Your task to perform on an android device: Do I have any events tomorrow? Image 0: 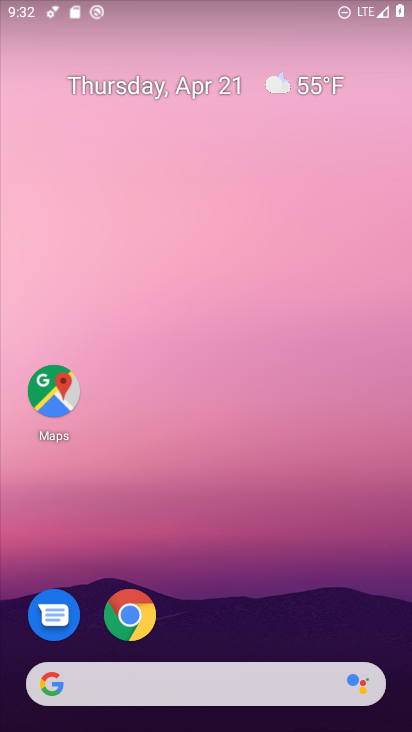
Step 0: drag from (317, 569) to (332, 133)
Your task to perform on an android device: Do I have any events tomorrow? Image 1: 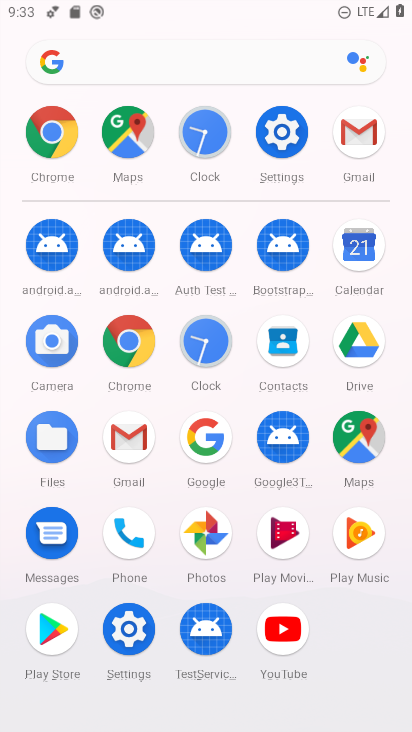
Step 1: click (353, 256)
Your task to perform on an android device: Do I have any events tomorrow? Image 2: 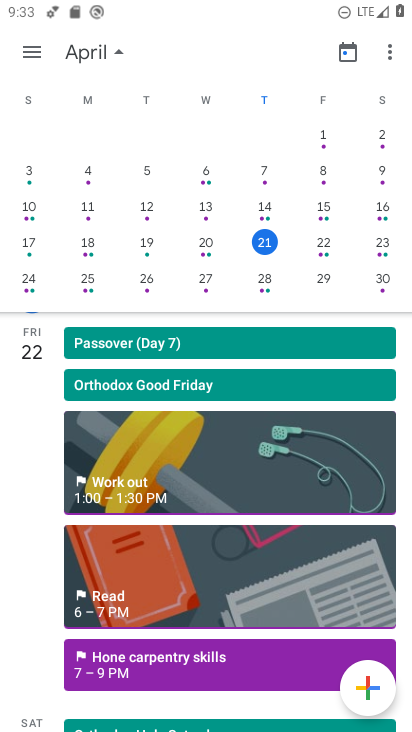
Step 2: click (313, 244)
Your task to perform on an android device: Do I have any events tomorrow? Image 3: 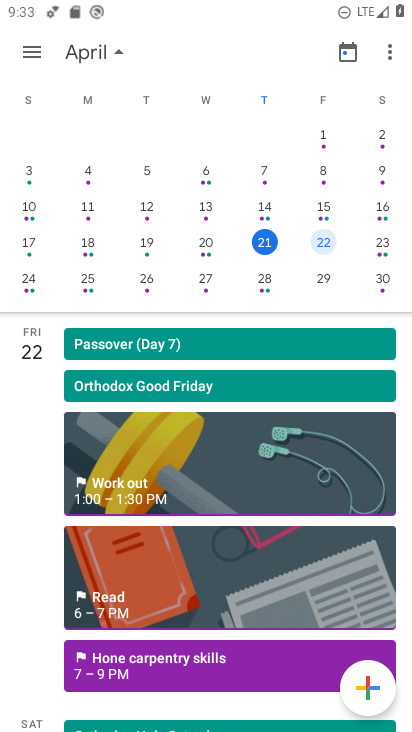
Step 3: task complete